Your task to perform on an android device: search for starred emails in the gmail app Image 0: 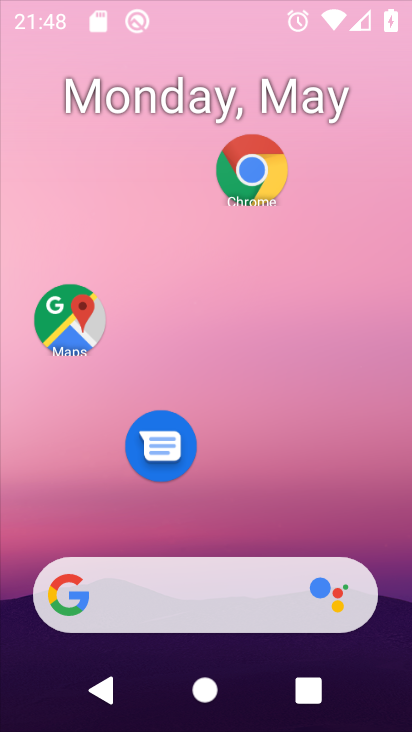
Step 0: press home button
Your task to perform on an android device: search for starred emails in the gmail app Image 1: 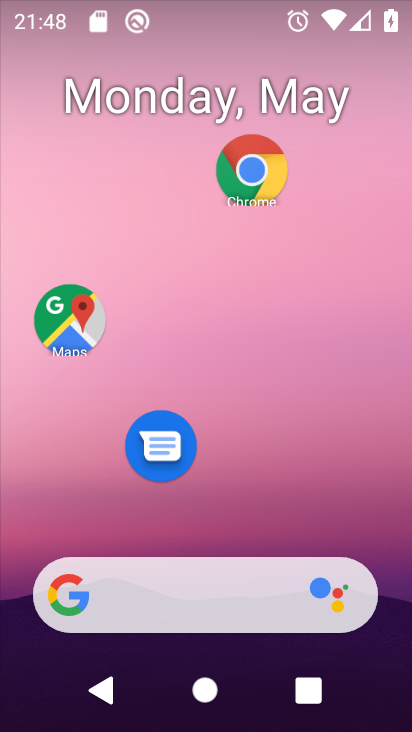
Step 1: drag from (214, 519) to (261, 67)
Your task to perform on an android device: search for starred emails in the gmail app Image 2: 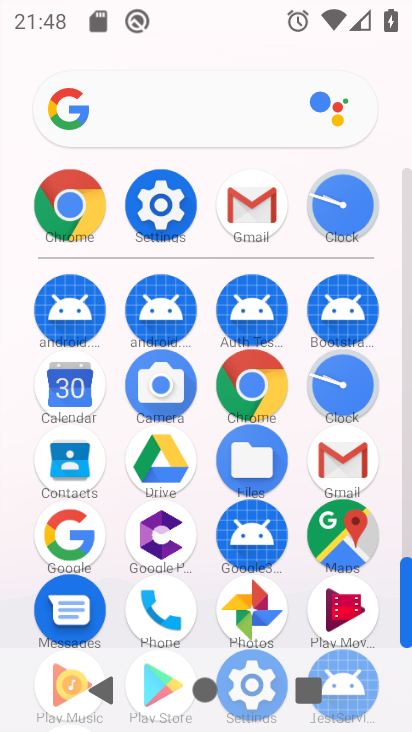
Step 2: click (346, 459)
Your task to perform on an android device: search for starred emails in the gmail app Image 3: 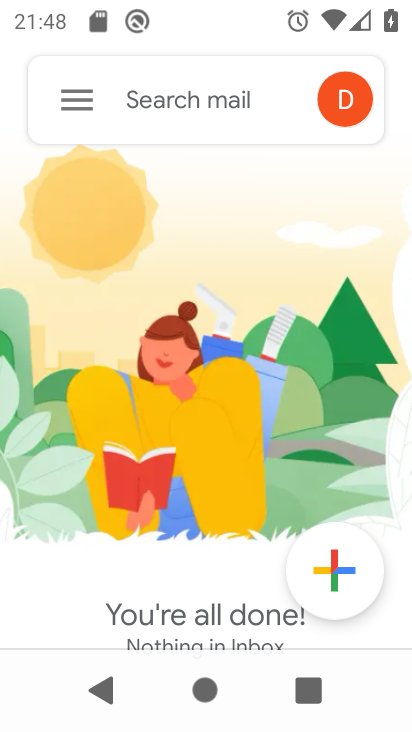
Step 3: click (71, 95)
Your task to perform on an android device: search for starred emails in the gmail app Image 4: 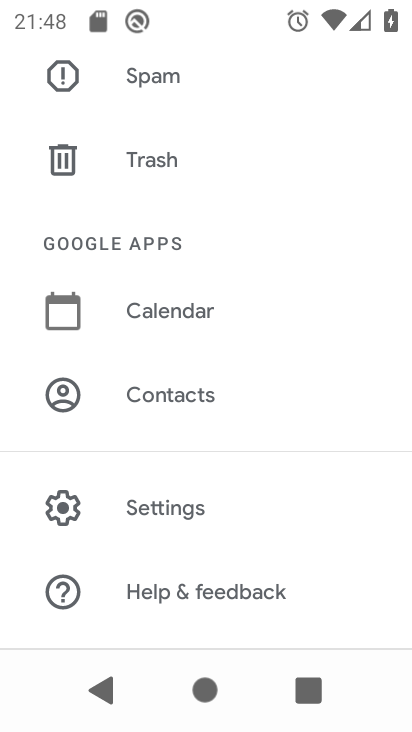
Step 4: drag from (134, 102) to (171, 622)
Your task to perform on an android device: search for starred emails in the gmail app Image 5: 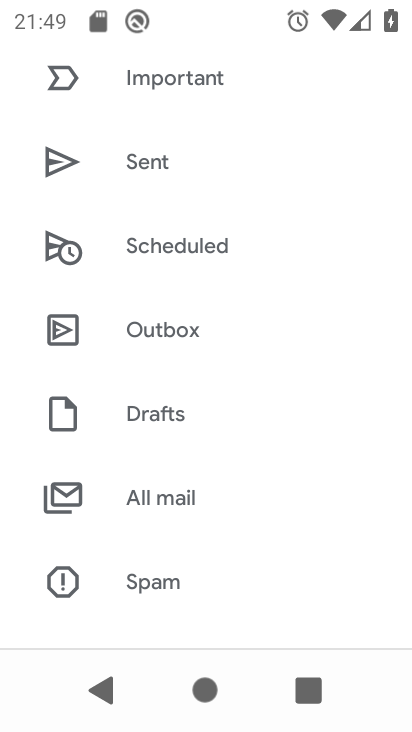
Step 5: drag from (103, 122) to (118, 609)
Your task to perform on an android device: search for starred emails in the gmail app Image 6: 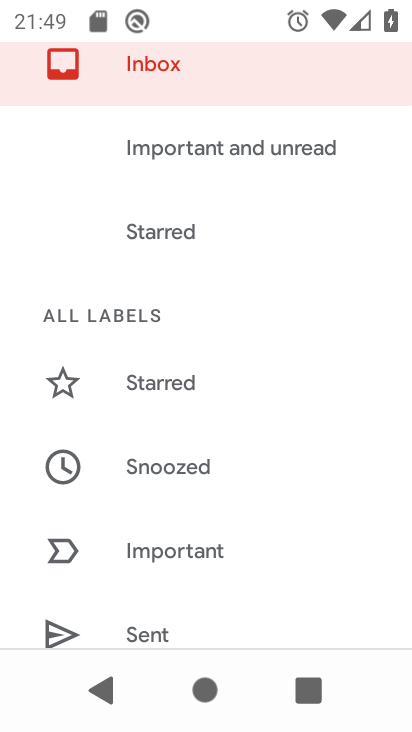
Step 6: click (111, 369)
Your task to perform on an android device: search for starred emails in the gmail app Image 7: 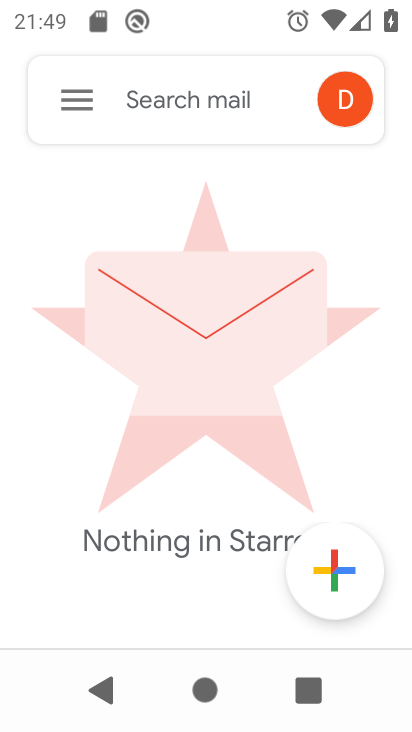
Step 7: task complete